Your task to perform on an android device: read, delete, or share a saved page in the chrome app Image 0: 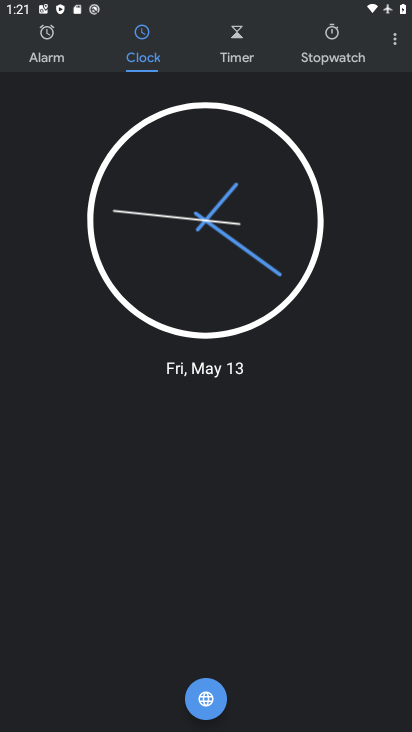
Step 0: press home button
Your task to perform on an android device: read, delete, or share a saved page in the chrome app Image 1: 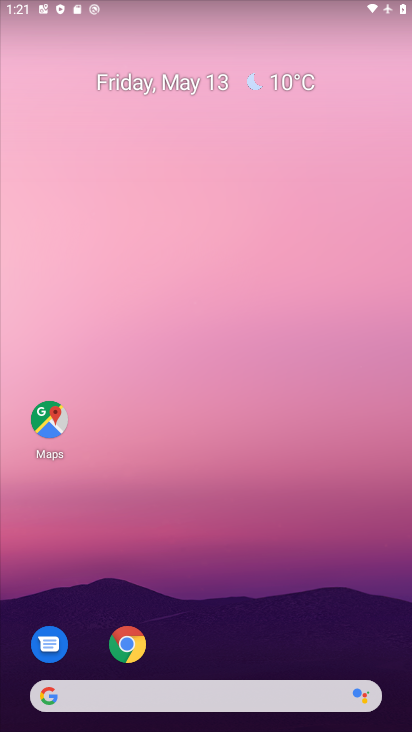
Step 1: click (127, 645)
Your task to perform on an android device: read, delete, or share a saved page in the chrome app Image 2: 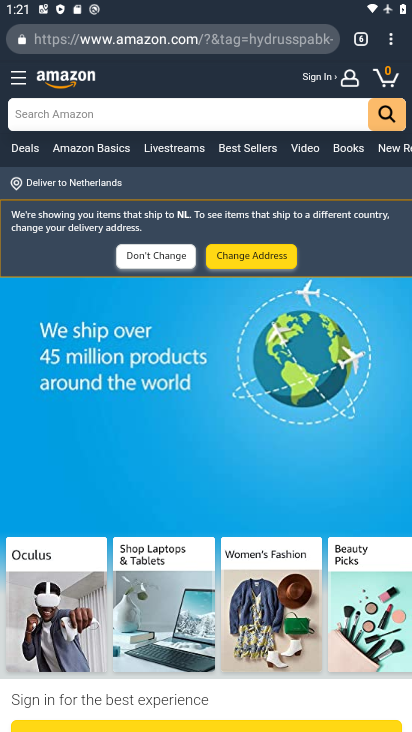
Step 2: click (391, 44)
Your task to perform on an android device: read, delete, or share a saved page in the chrome app Image 3: 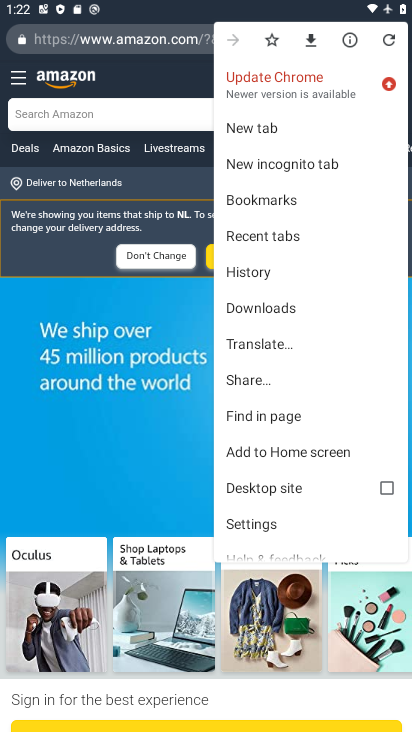
Step 3: click (253, 308)
Your task to perform on an android device: read, delete, or share a saved page in the chrome app Image 4: 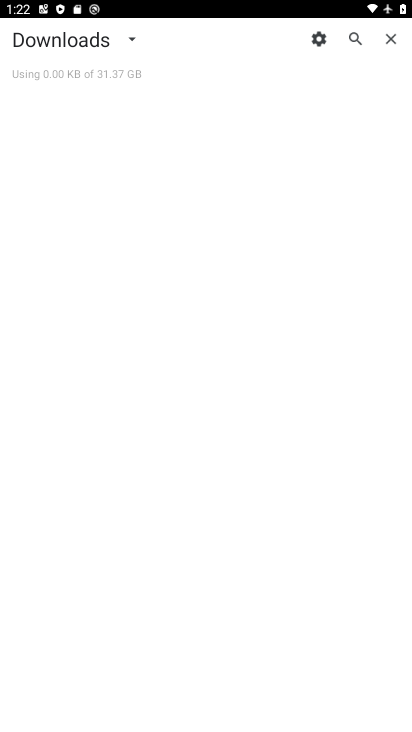
Step 4: click (130, 40)
Your task to perform on an android device: read, delete, or share a saved page in the chrome app Image 5: 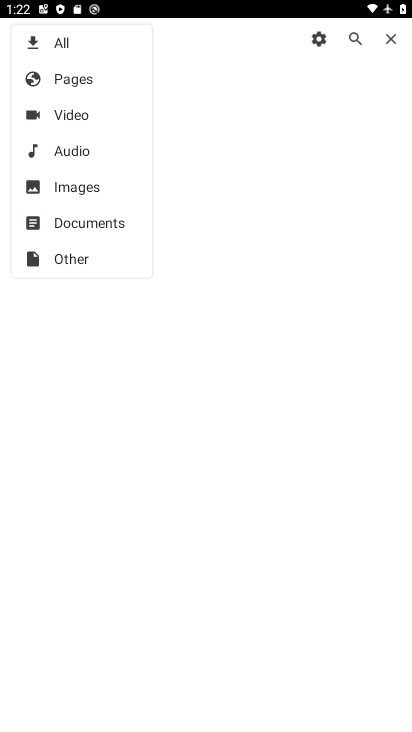
Step 5: click (74, 79)
Your task to perform on an android device: read, delete, or share a saved page in the chrome app Image 6: 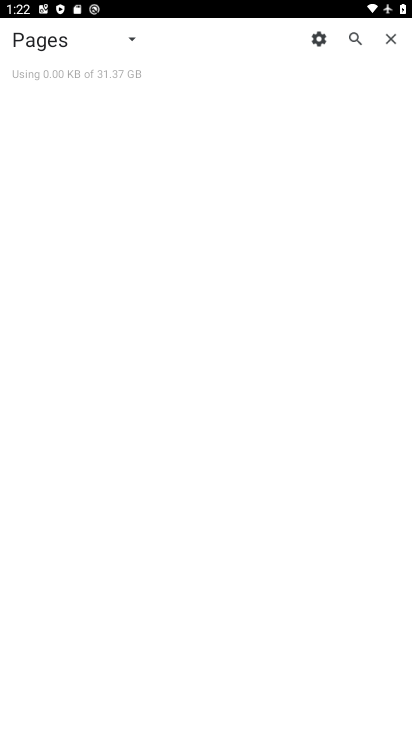
Step 6: task complete